Your task to perform on an android device: make emails show in primary in the gmail app Image 0: 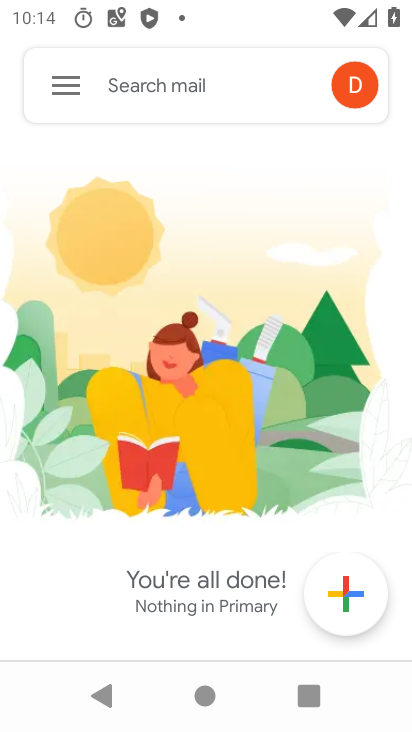
Step 0: click (63, 87)
Your task to perform on an android device: make emails show in primary in the gmail app Image 1: 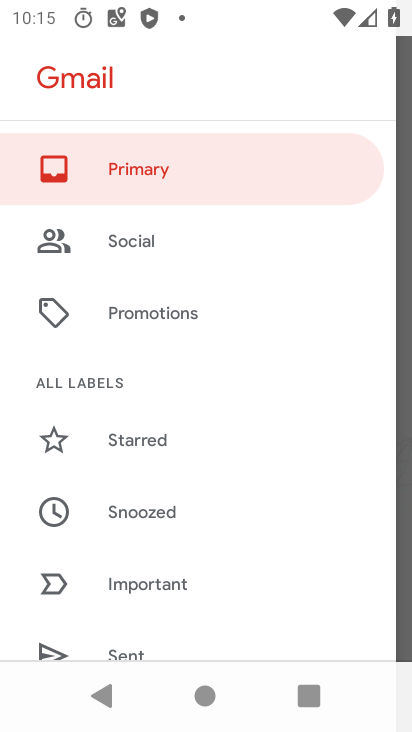
Step 1: drag from (177, 629) to (182, 277)
Your task to perform on an android device: make emails show in primary in the gmail app Image 2: 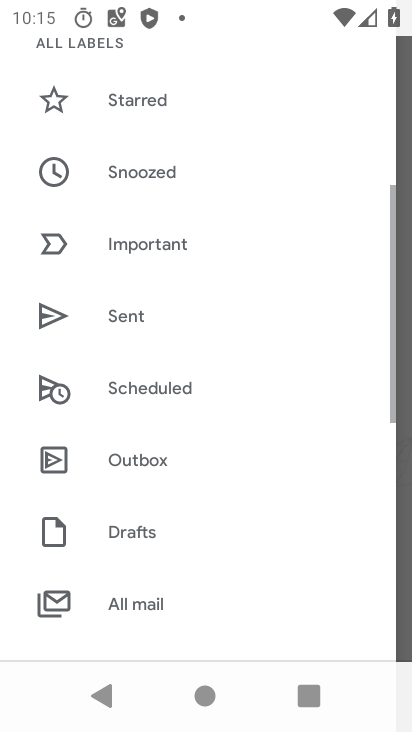
Step 2: drag from (155, 610) to (167, 270)
Your task to perform on an android device: make emails show in primary in the gmail app Image 3: 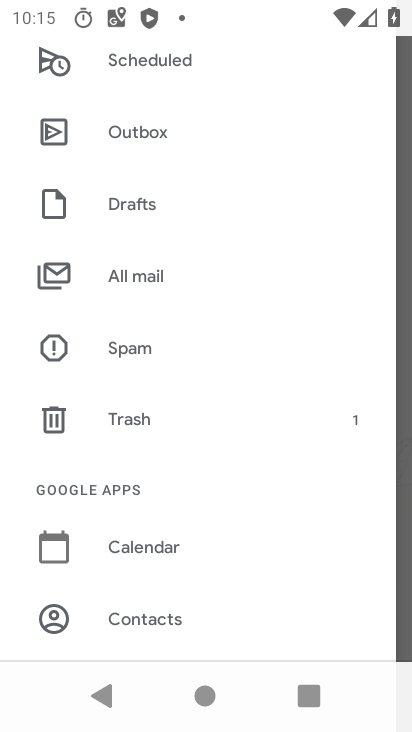
Step 3: drag from (138, 617) to (155, 221)
Your task to perform on an android device: make emails show in primary in the gmail app Image 4: 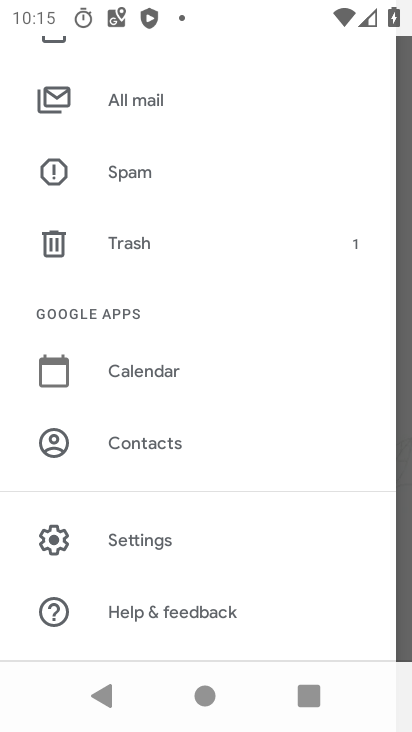
Step 4: click (125, 535)
Your task to perform on an android device: make emails show in primary in the gmail app Image 5: 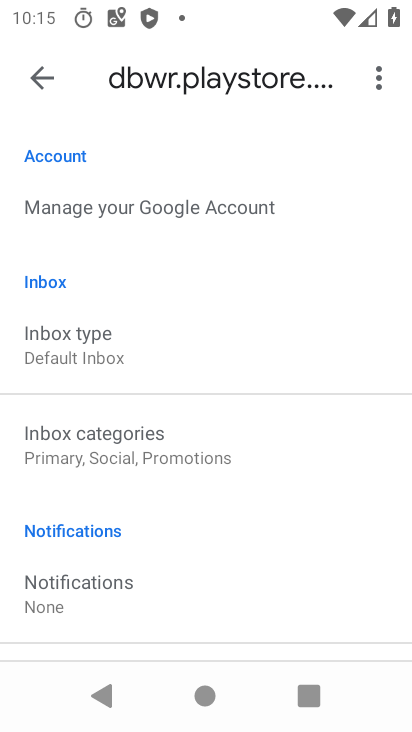
Step 5: click (98, 443)
Your task to perform on an android device: make emails show in primary in the gmail app Image 6: 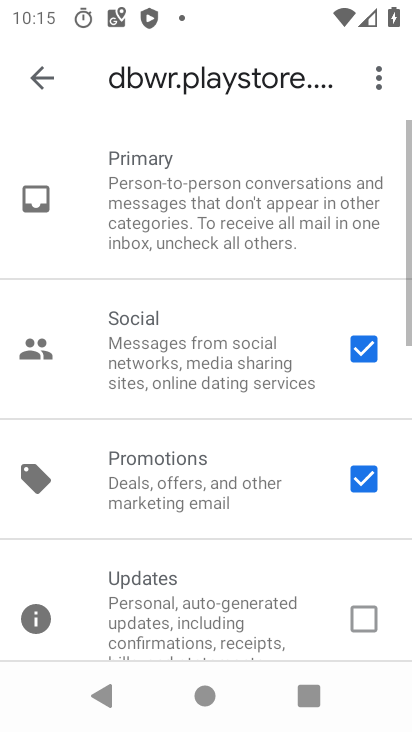
Step 6: click (358, 480)
Your task to perform on an android device: make emails show in primary in the gmail app Image 7: 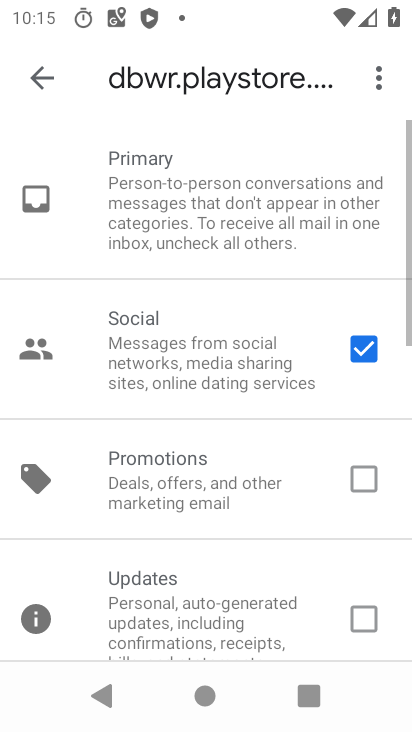
Step 7: click (369, 341)
Your task to perform on an android device: make emails show in primary in the gmail app Image 8: 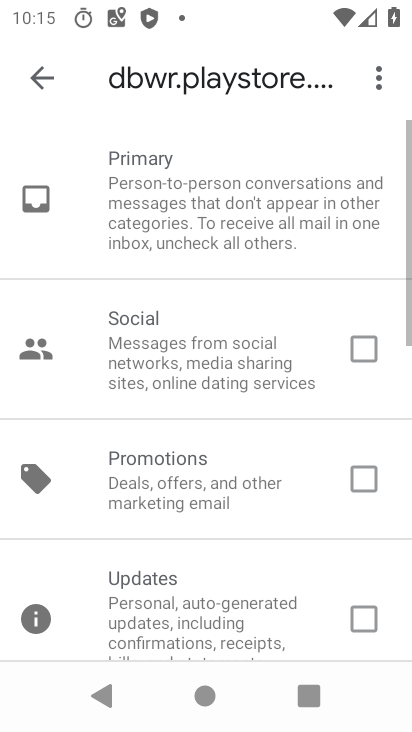
Step 8: click (40, 74)
Your task to perform on an android device: make emails show in primary in the gmail app Image 9: 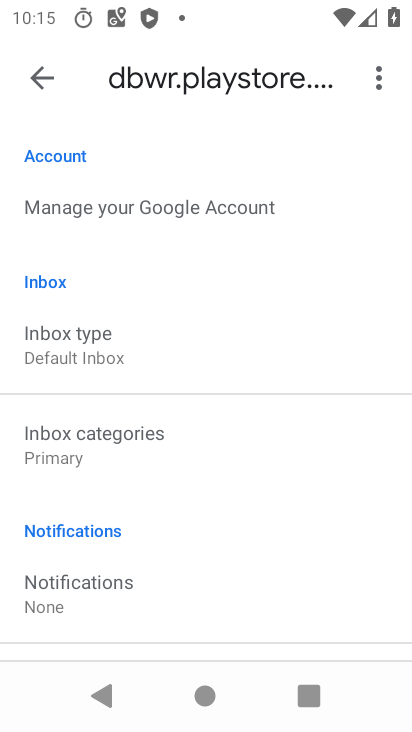
Step 9: task complete